Your task to perform on an android device: Open wifi settings Image 0: 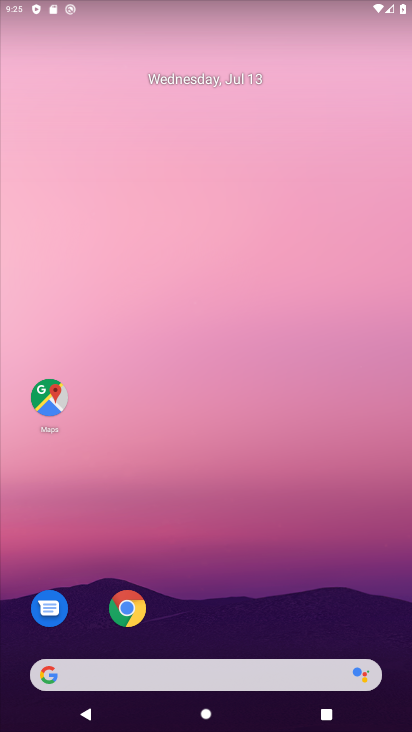
Step 0: drag from (98, 596) to (280, 57)
Your task to perform on an android device: Open wifi settings Image 1: 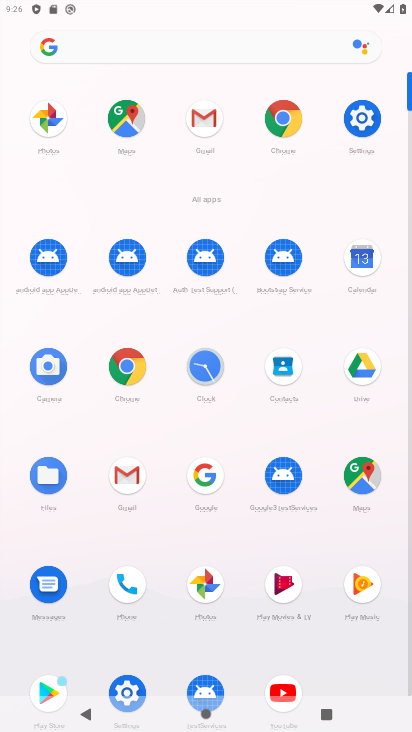
Step 1: click (121, 696)
Your task to perform on an android device: Open wifi settings Image 2: 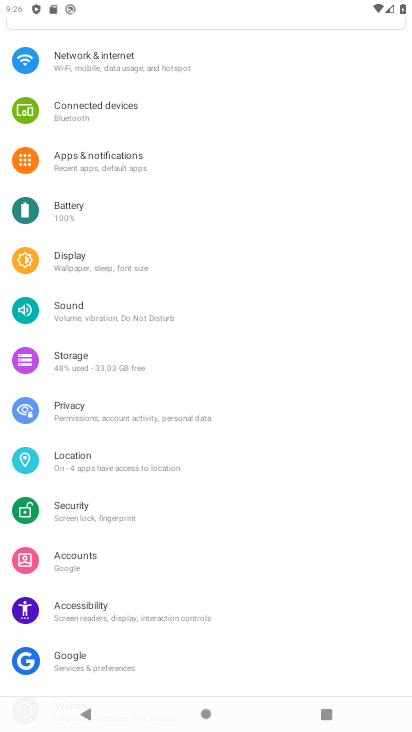
Step 2: click (122, 52)
Your task to perform on an android device: Open wifi settings Image 3: 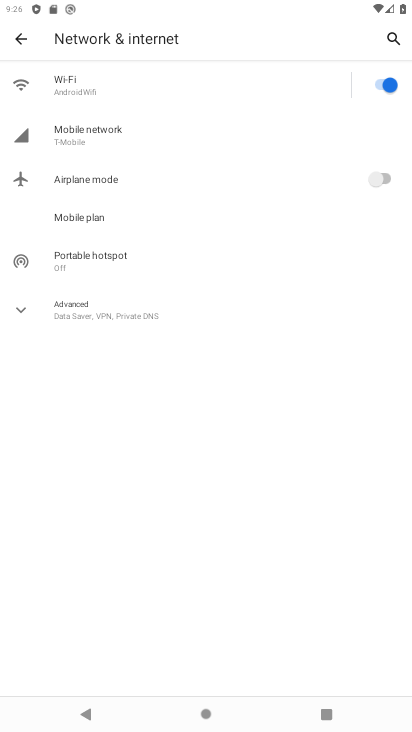
Step 3: task complete